Your task to perform on an android device: open app "Skype" (install if not already installed), go to login, and select forgot password Image 0: 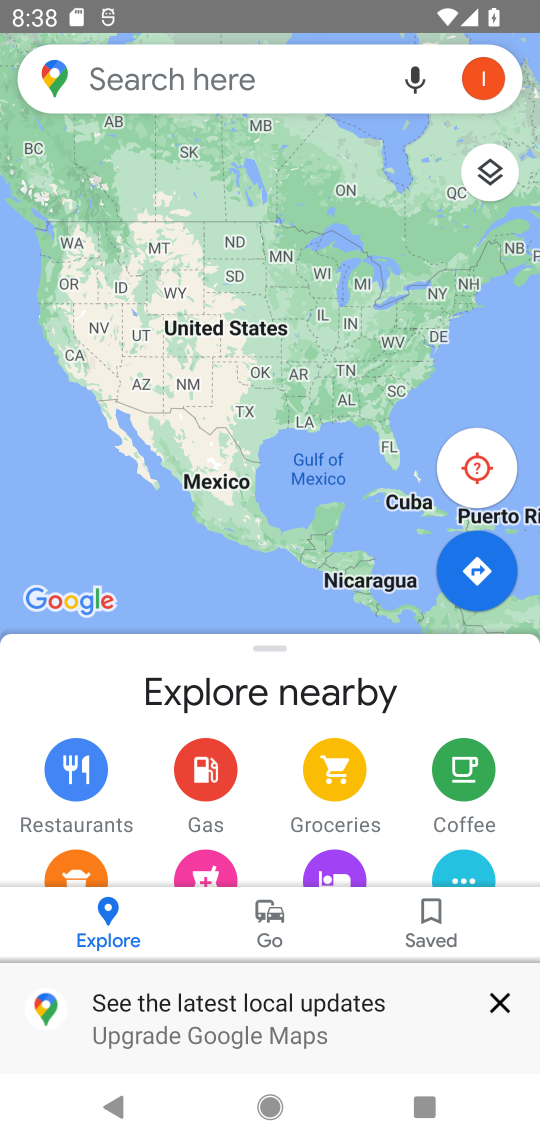
Step 0: click (265, 84)
Your task to perform on an android device: open app "Skype" (install if not already installed), go to login, and select forgot password Image 1: 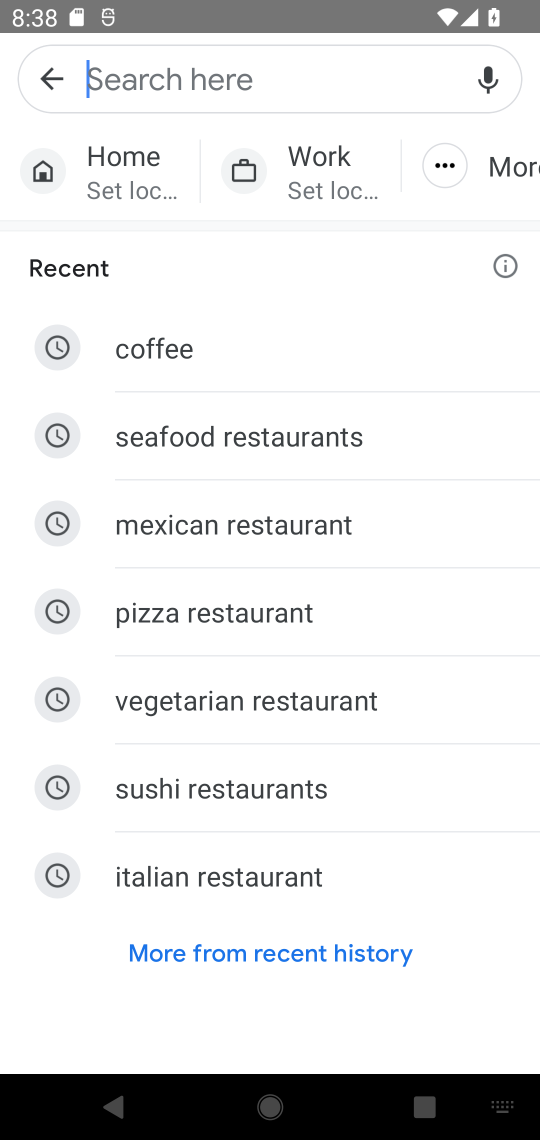
Step 1: press home button
Your task to perform on an android device: open app "Skype" (install if not already installed), go to login, and select forgot password Image 2: 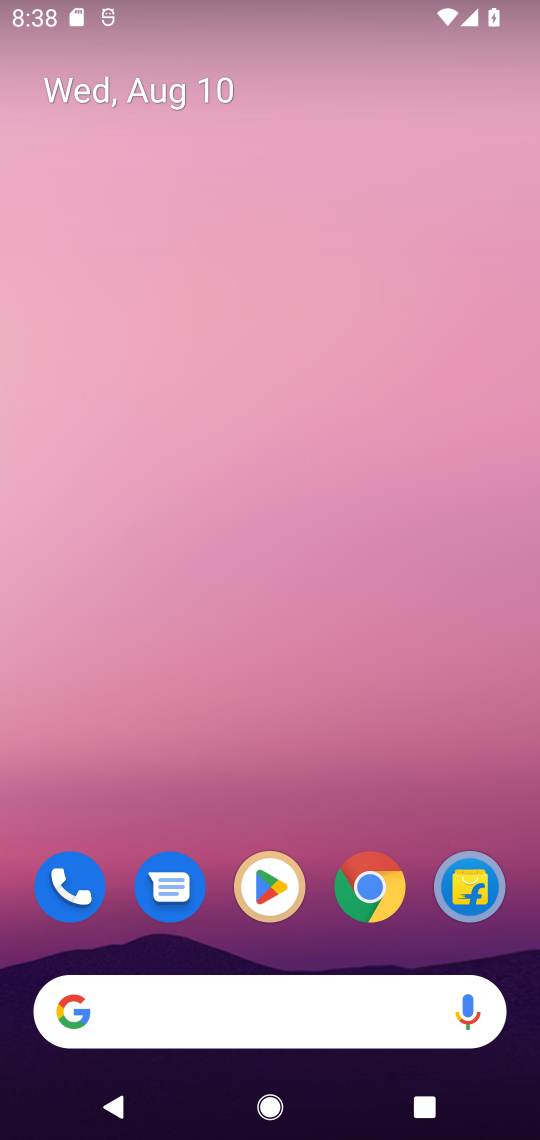
Step 2: click (286, 902)
Your task to perform on an android device: open app "Skype" (install if not already installed), go to login, and select forgot password Image 3: 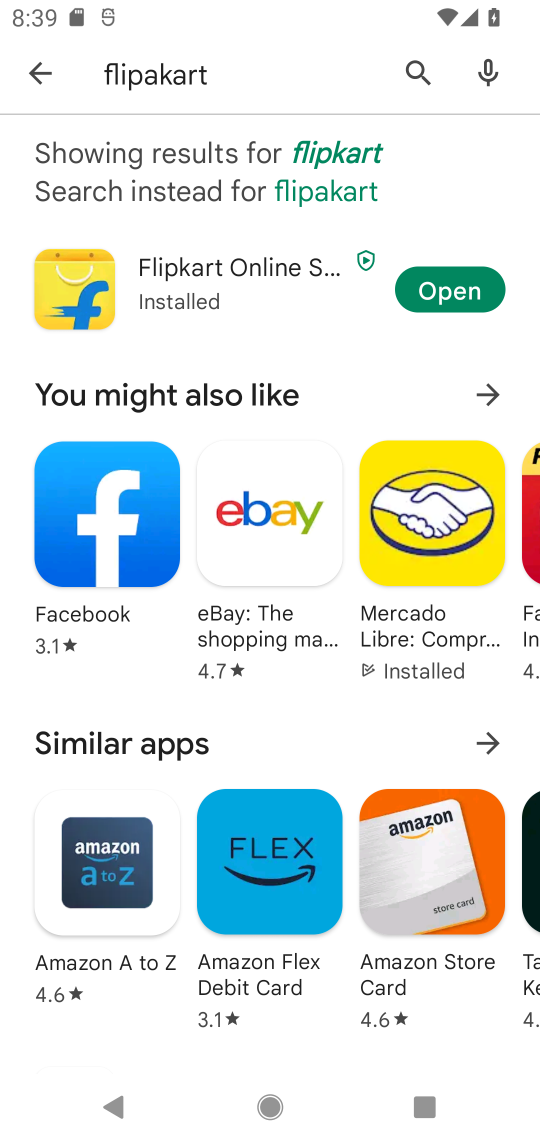
Step 3: click (400, 59)
Your task to perform on an android device: open app "Skype" (install if not already installed), go to login, and select forgot password Image 4: 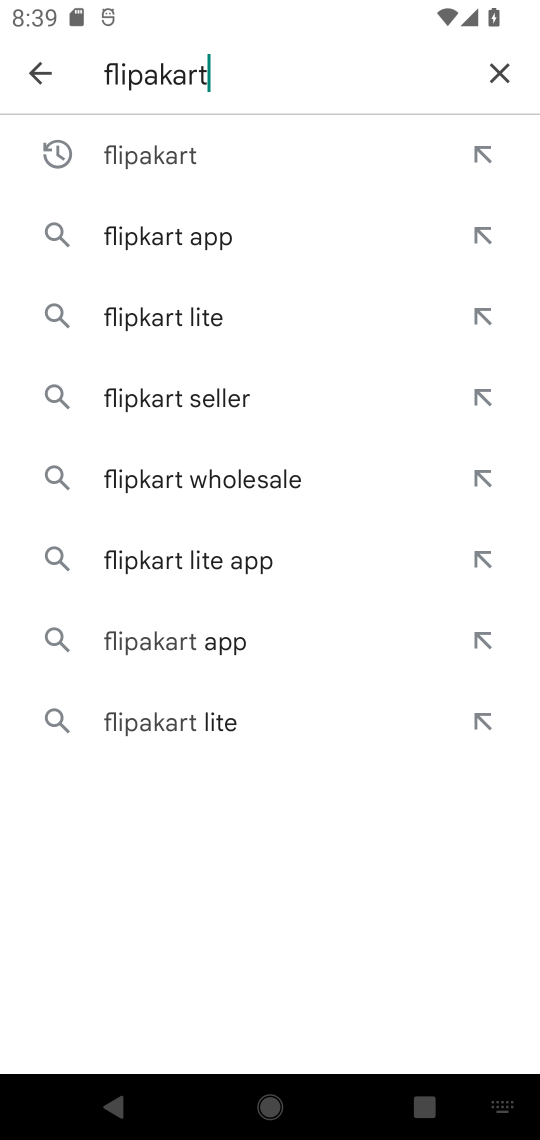
Step 4: click (482, 59)
Your task to perform on an android device: open app "Skype" (install if not already installed), go to login, and select forgot password Image 5: 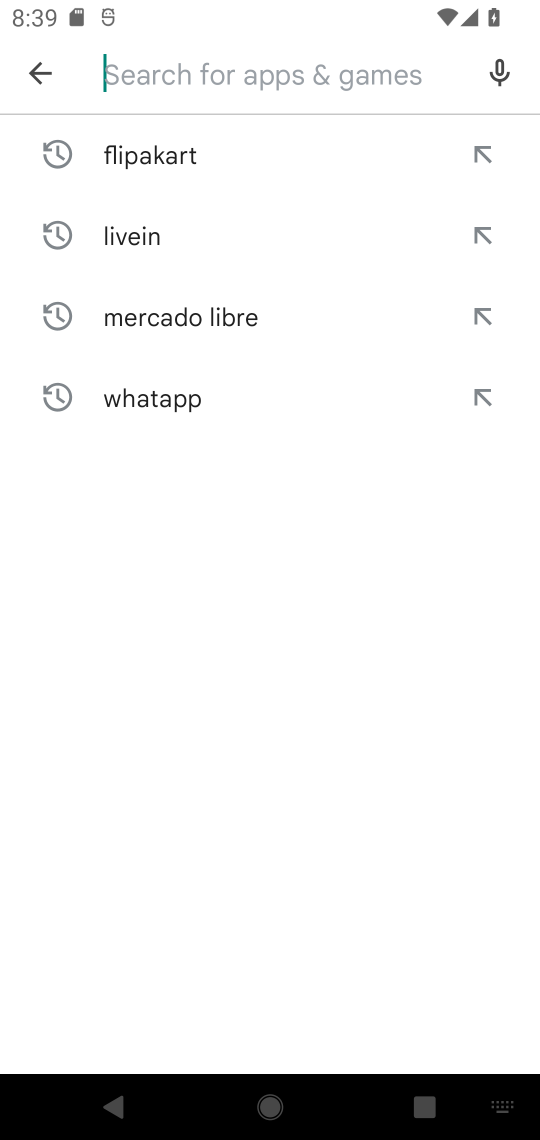
Step 5: type "skype"
Your task to perform on an android device: open app "Skype" (install if not already installed), go to login, and select forgot password Image 6: 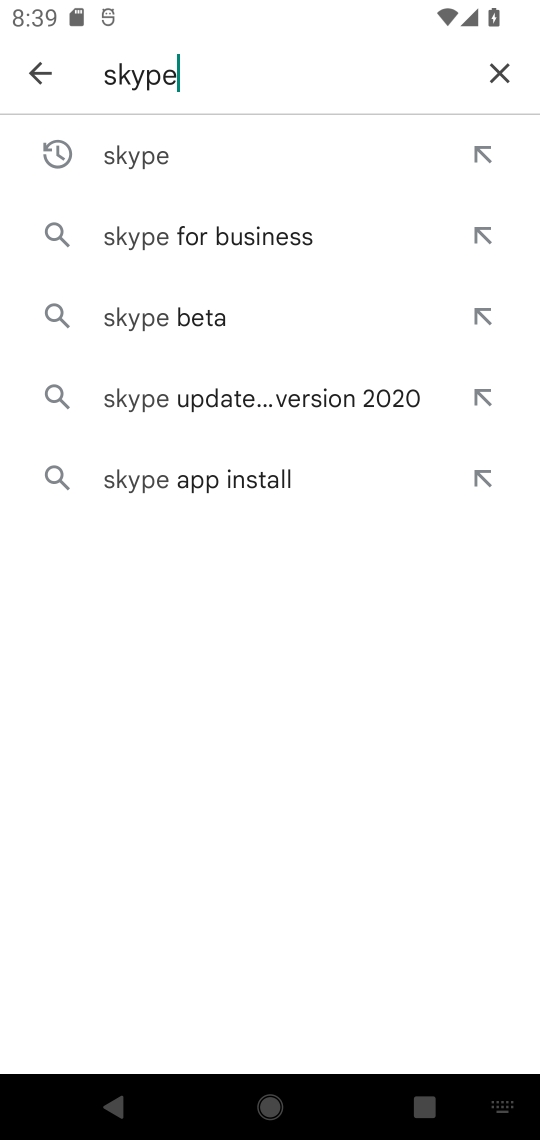
Step 6: click (252, 173)
Your task to perform on an android device: open app "Skype" (install if not already installed), go to login, and select forgot password Image 7: 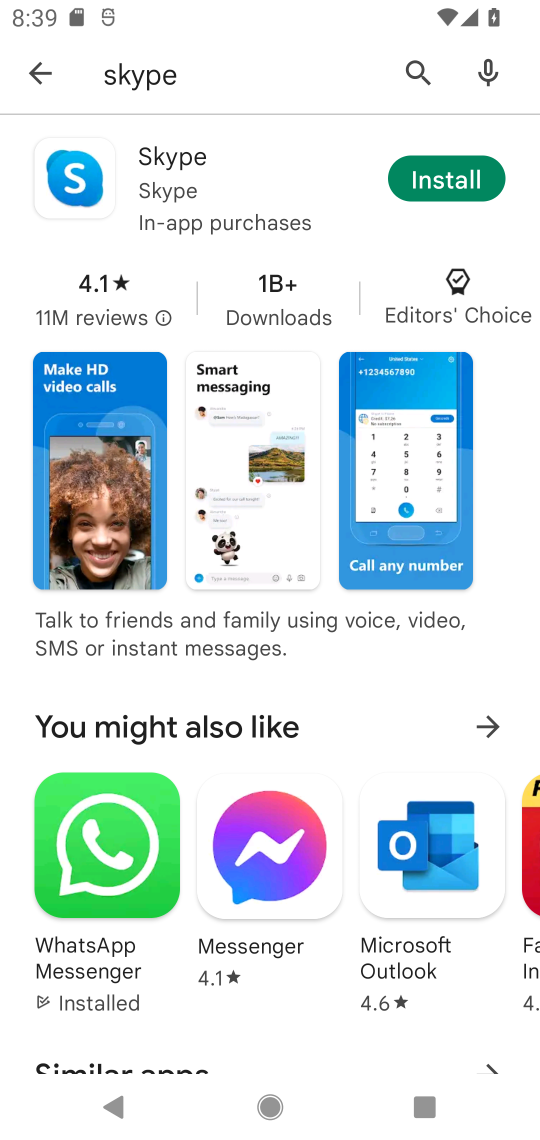
Step 7: click (433, 182)
Your task to perform on an android device: open app "Skype" (install if not already installed), go to login, and select forgot password Image 8: 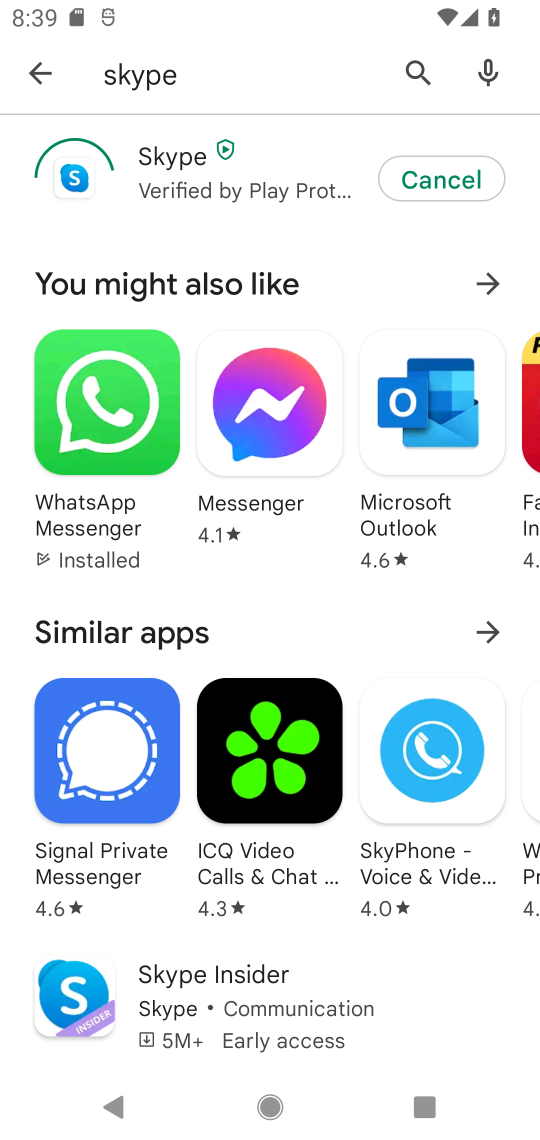
Step 8: task complete